Your task to perform on an android device: open a bookmark in the chrome app Image 0: 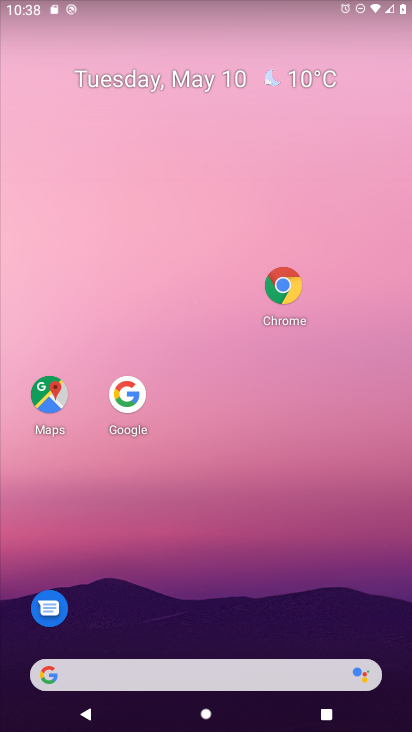
Step 0: drag from (140, 673) to (305, 101)
Your task to perform on an android device: open a bookmark in the chrome app Image 1: 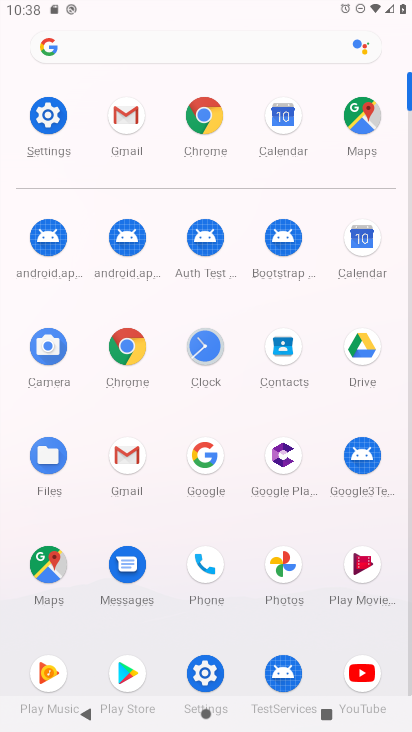
Step 1: click (207, 123)
Your task to perform on an android device: open a bookmark in the chrome app Image 2: 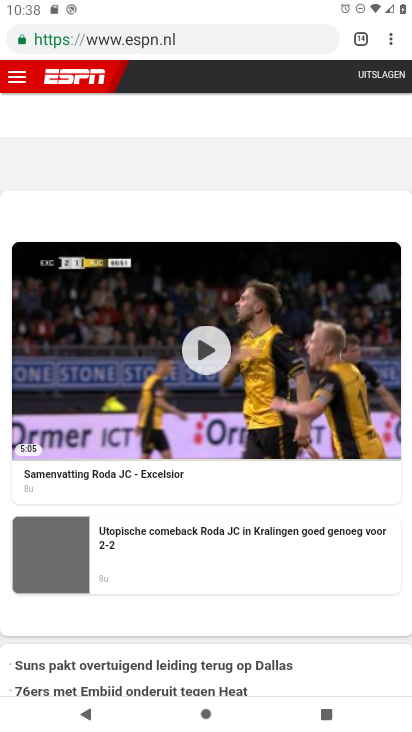
Step 2: task complete